Your task to perform on an android device: turn on wifi Image 0: 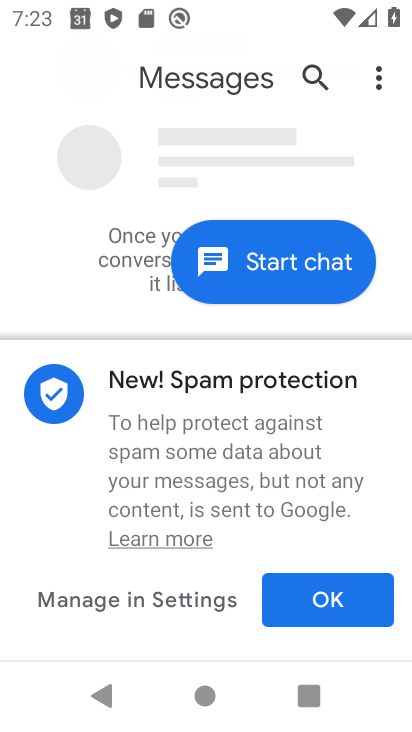
Step 0: press home button
Your task to perform on an android device: turn on wifi Image 1: 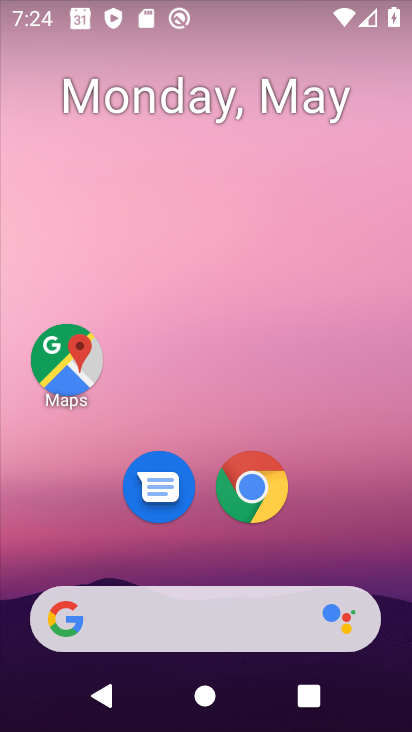
Step 1: drag from (228, 650) to (248, 126)
Your task to perform on an android device: turn on wifi Image 2: 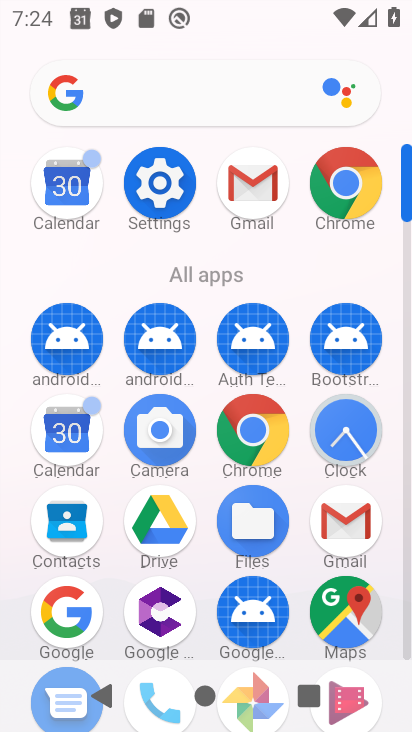
Step 2: click (155, 184)
Your task to perform on an android device: turn on wifi Image 3: 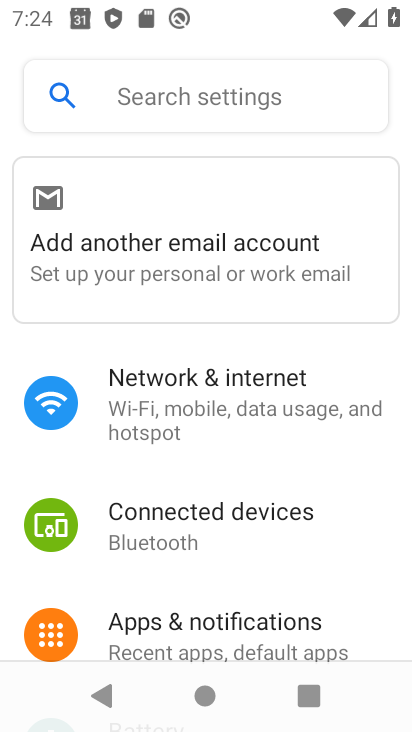
Step 3: click (156, 386)
Your task to perform on an android device: turn on wifi Image 4: 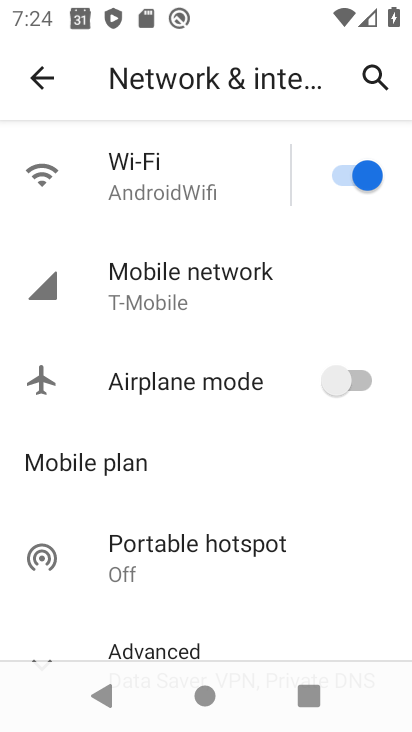
Step 4: click (356, 169)
Your task to perform on an android device: turn on wifi Image 5: 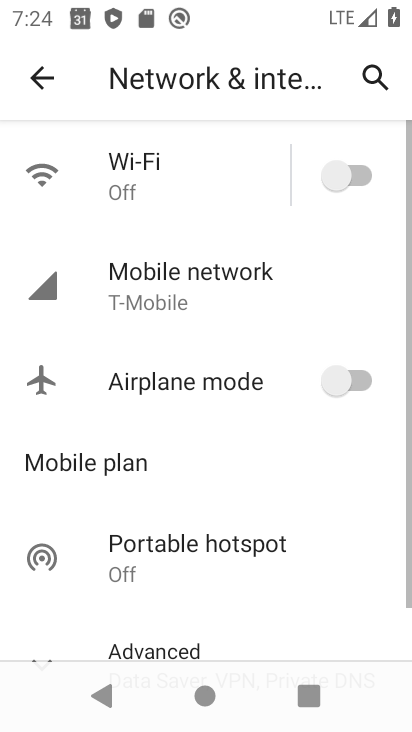
Step 5: click (356, 169)
Your task to perform on an android device: turn on wifi Image 6: 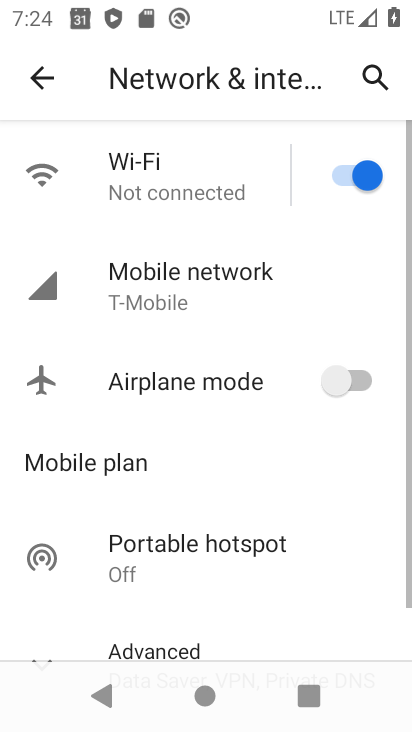
Step 6: task complete